Your task to perform on an android device: see sites visited before in the chrome app Image 0: 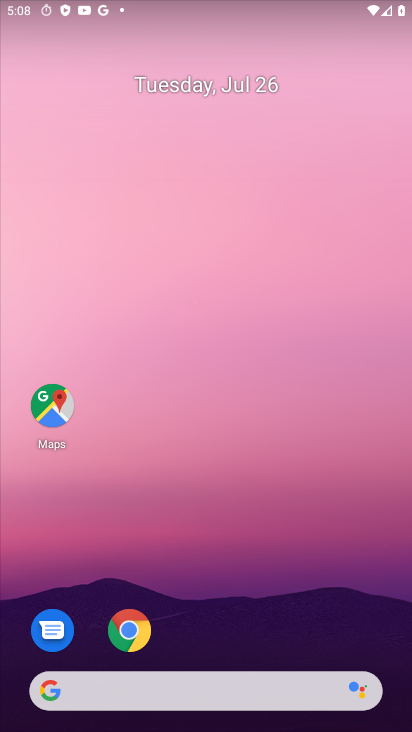
Step 0: drag from (266, 653) to (166, 93)
Your task to perform on an android device: see sites visited before in the chrome app Image 1: 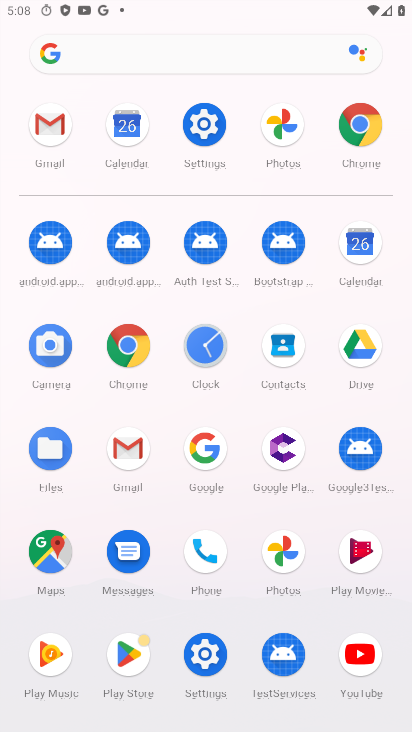
Step 1: click (362, 128)
Your task to perform on an android device: see sites visited before in the chrome app Image 2: 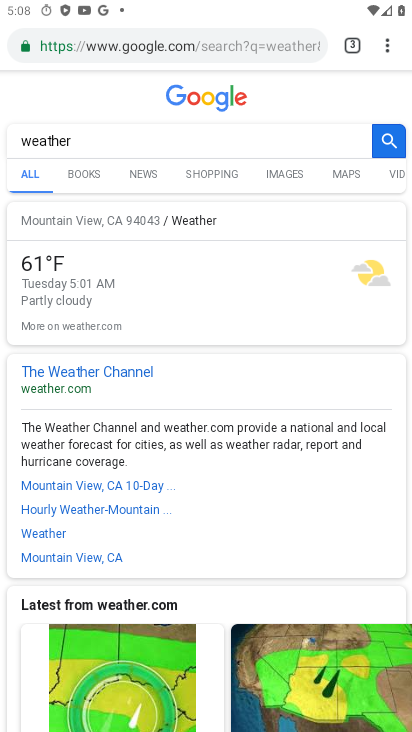
Step 2: task complete